Your task to perform on an android device: Open the Play Movies app and select the watchlist tab. Image 0: 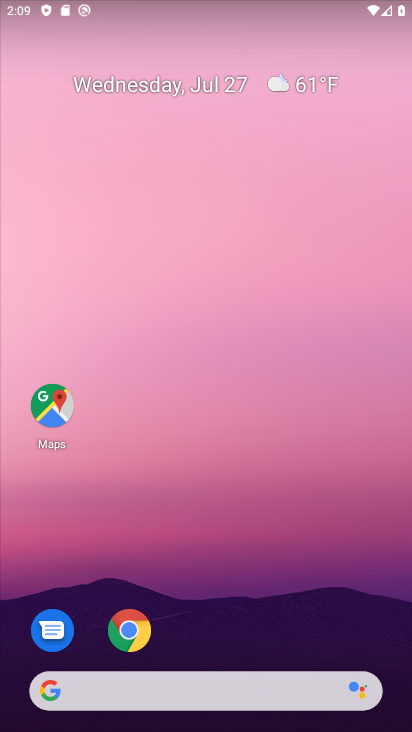
Step 0: drag from (214, 653) to (247, 11)
Your task to perform on an android device: Open the Play Movies app and select the watchlist tab. Image 1: 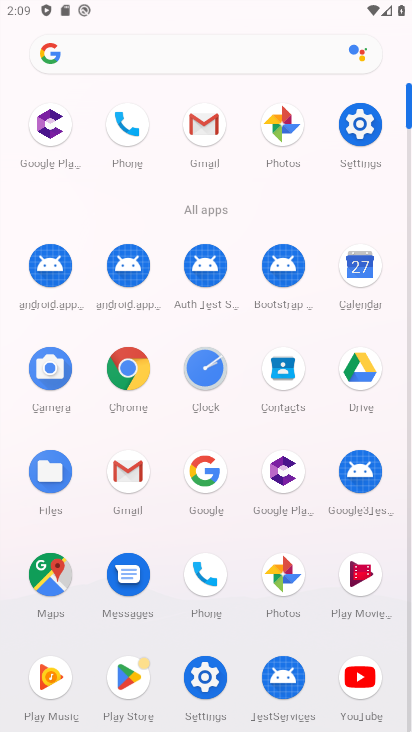
Step 1: click (360, 578)
Your task to perform on an android device: Open the Play Movies app and select the watchlist tab. Image 2: 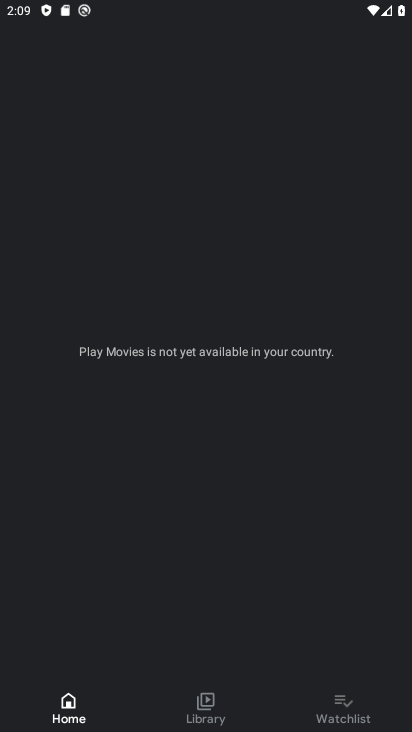
Step 2: click (342, 712)
Your task to perform on an android device: Open the Play Movies app and select the watchlist tab. Image 3: 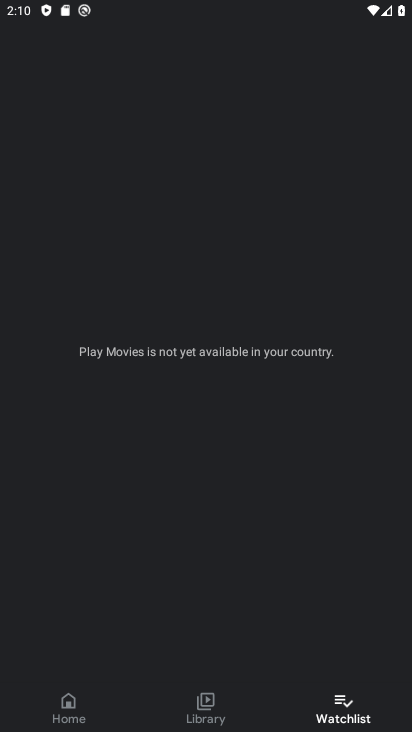
Step 3: task complete